Your task to perform on an android device: Open Google Maps and go to "Timeline" Image 0: 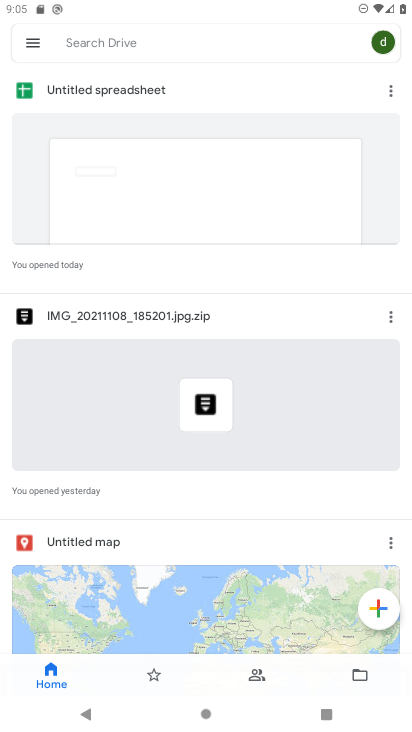
Step 0: press home button
Your task to perform on an android device: Open Google Maps and go to "Timeline" Image 1: 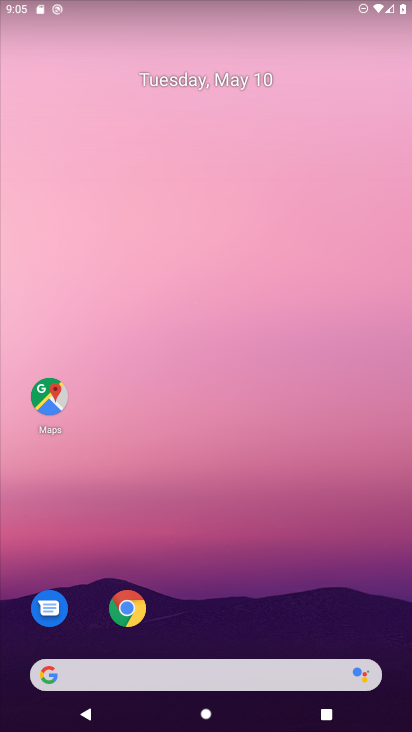
Step 1: drag from (384, 646) to (297, 30)
Your task to perform on an android device: Open Google Maps and go to "Timeline" Image 2: 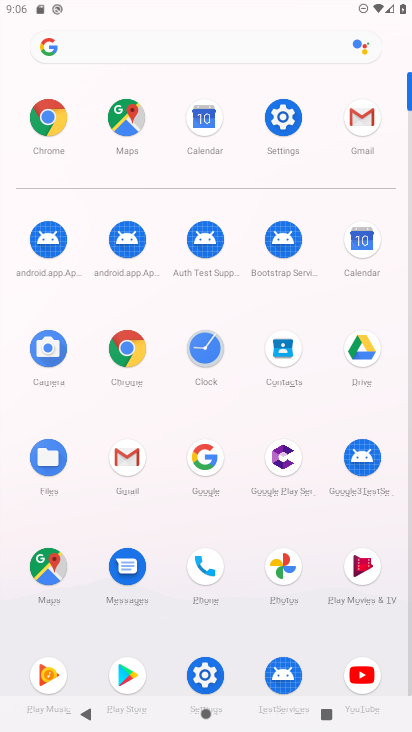
Step 2: click (125, 118)
Your task to perform on an android device: Open Google Maps and go to "Timeline" Image 3: 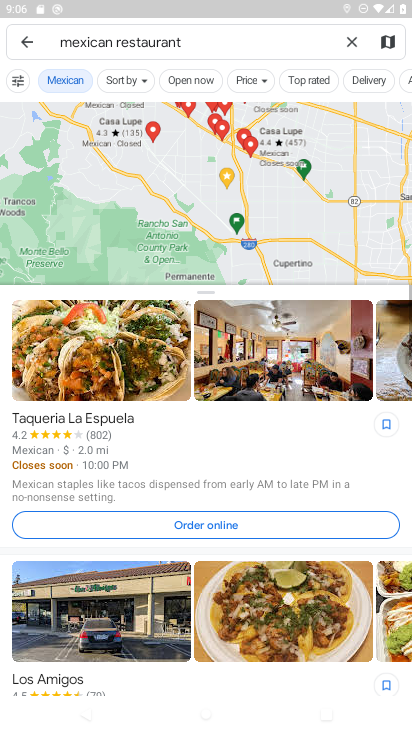
Step 3: click (345, 32)
Your task to perform on an android device: Open Google Maps and go to "Timeline" Image 4: 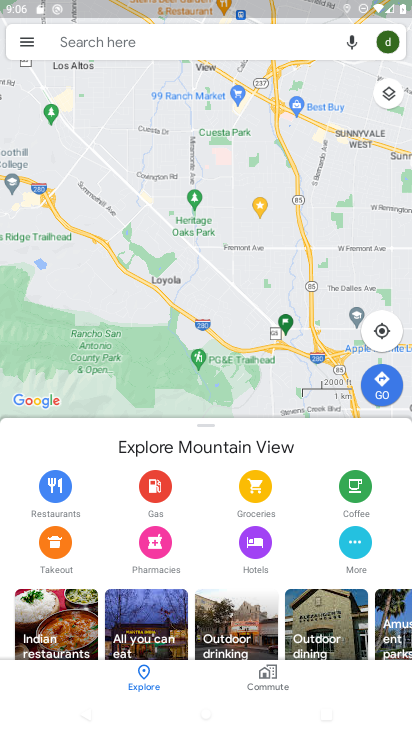
Step 4: click (26, 41)
Your task to perform on an android device: Open Google Maps and go to "Timeline" Image 5: 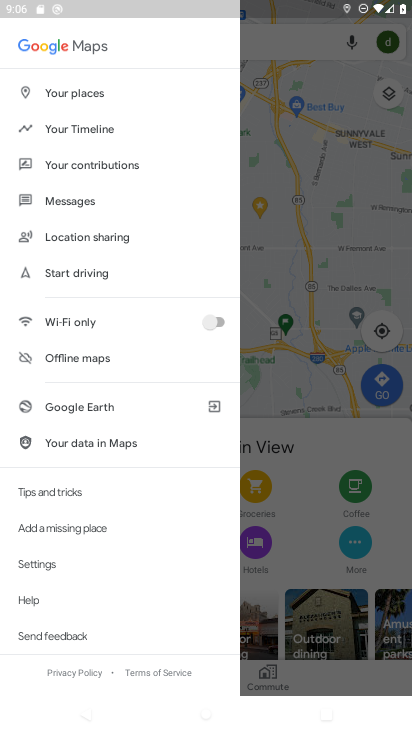
Step 5: click (86, 133)
Your task to perform on an android device: Open Google Maps and go to "Timeline" Image 6: 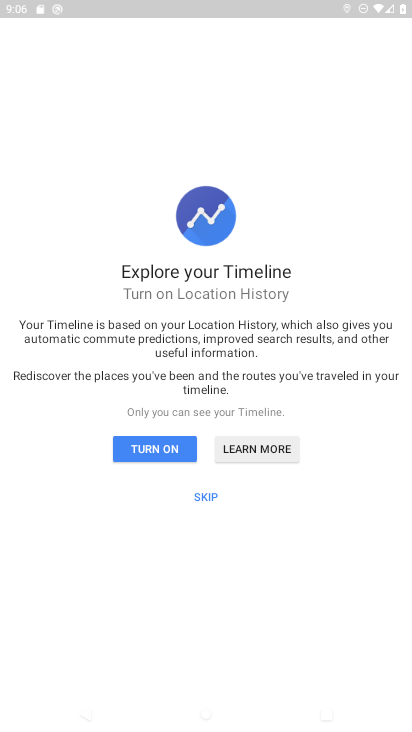
Step 6: task complete